Your task to perform on an android device: What's the weather going to be this weekend? Image 0: 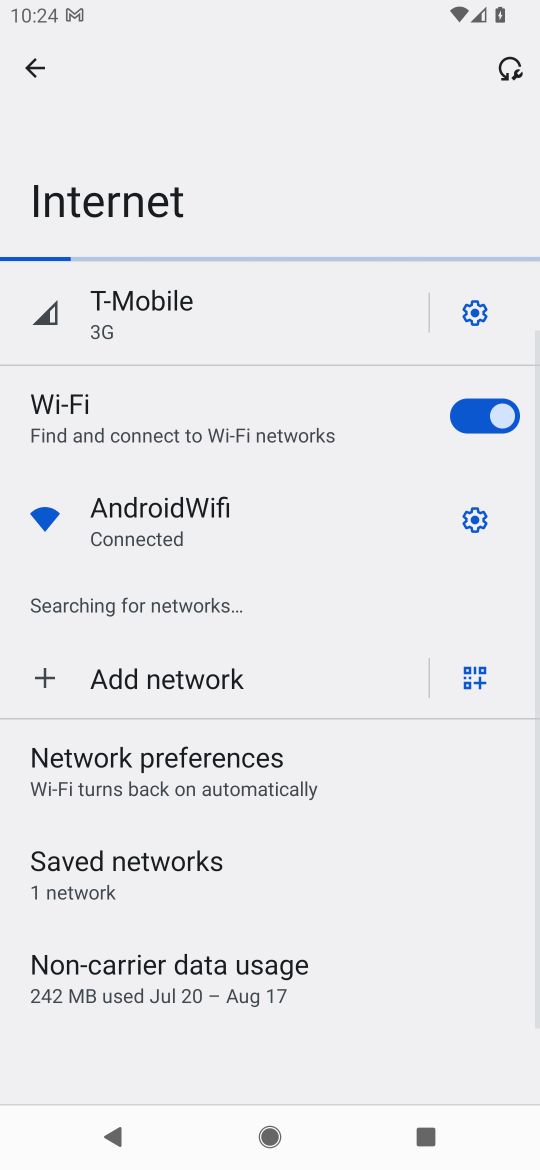
Step 0: press home button
Your task to perform on an android device: What's the weather going to be this weekend? Image 1: 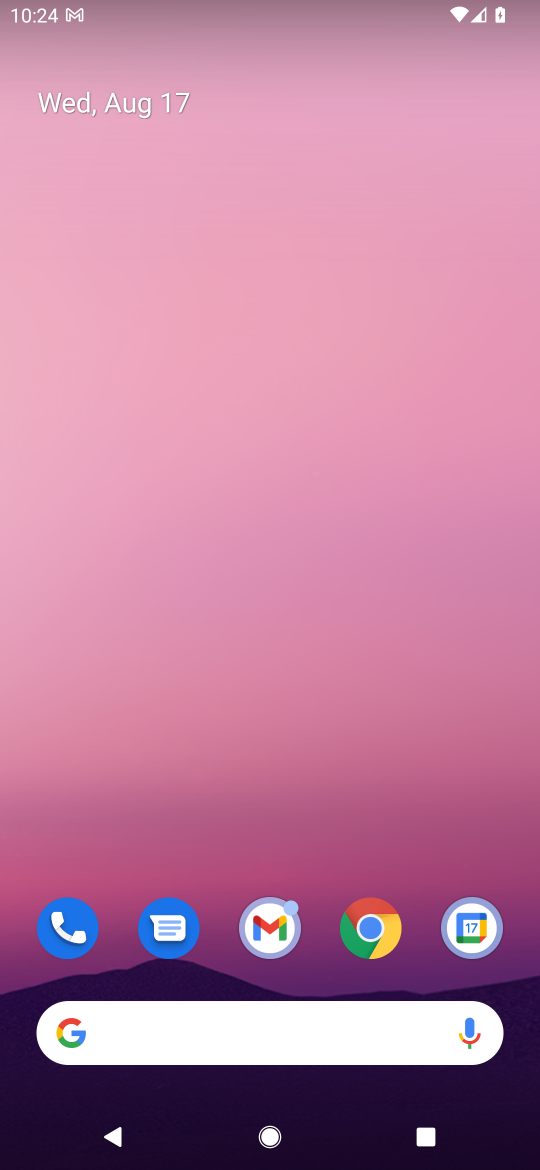
Step 1: click (343, 1024)
Your task to perform on an android device: What's the weather going to be this weekend? Image 2: 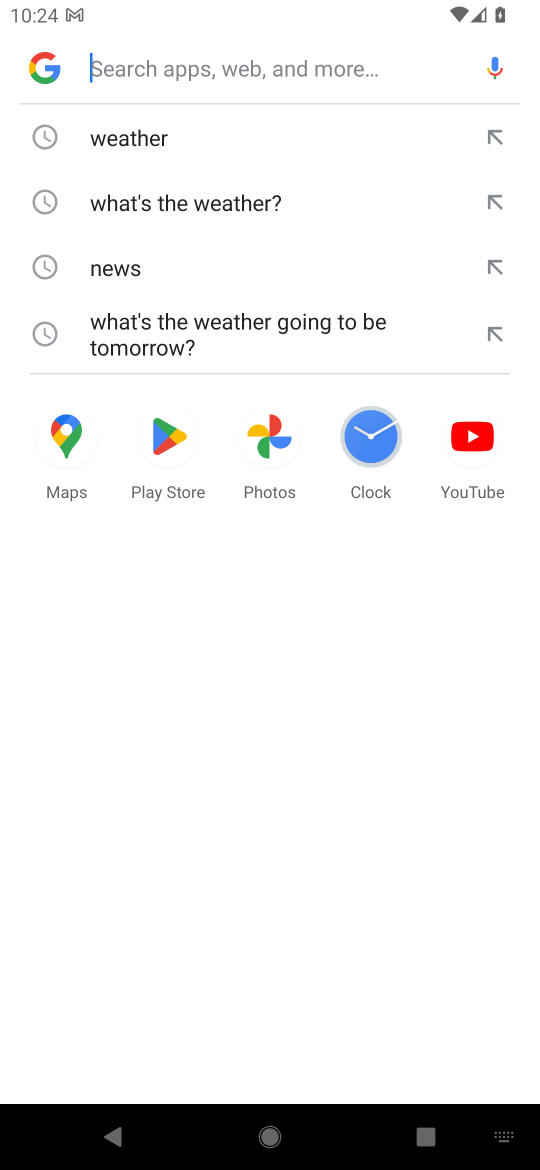
Step 2: click (177, 130)
Your task to perform on an android device: What's the weather going to be this weekend? Image 3: 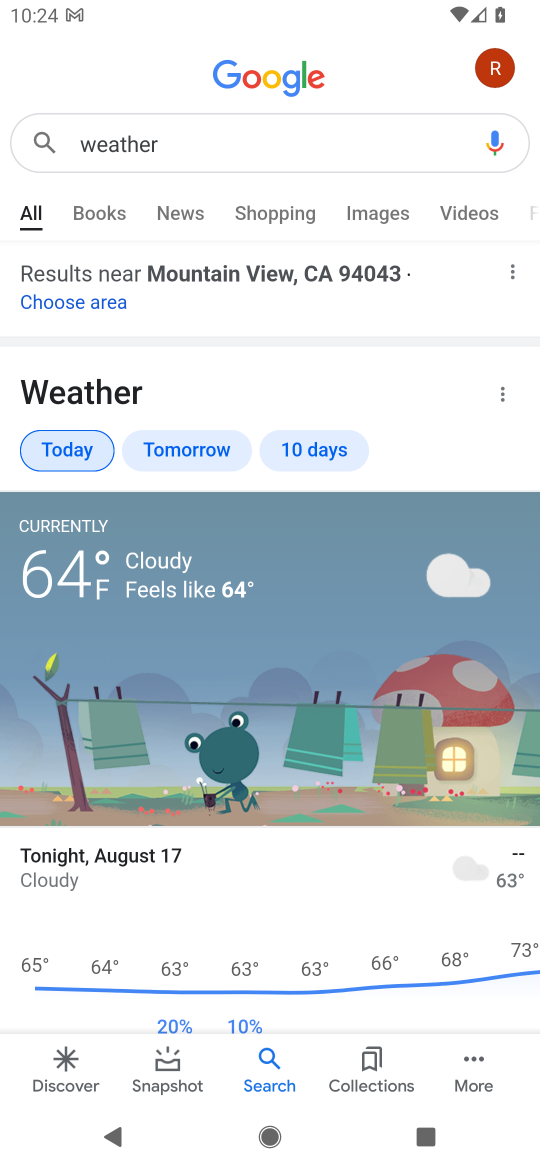
Step 3: click (329, 455)
Your task to perform on an android device: What's the weather going to be this weekend? Image 4: 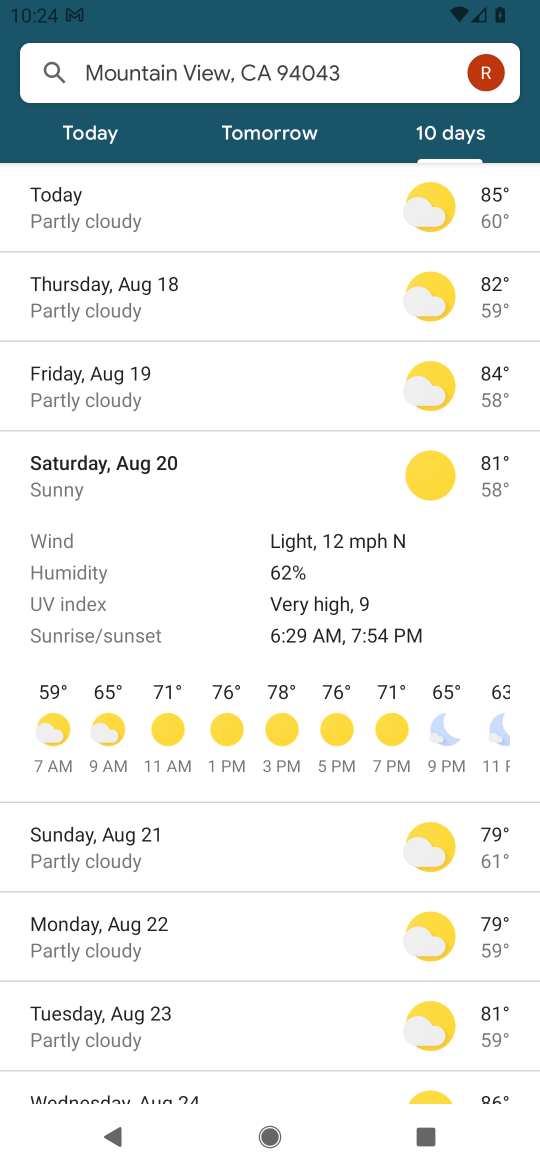
Step 4: click (343, 644)
Your task to perform on an android device: What's the weather going to be this weekend? Image 5: 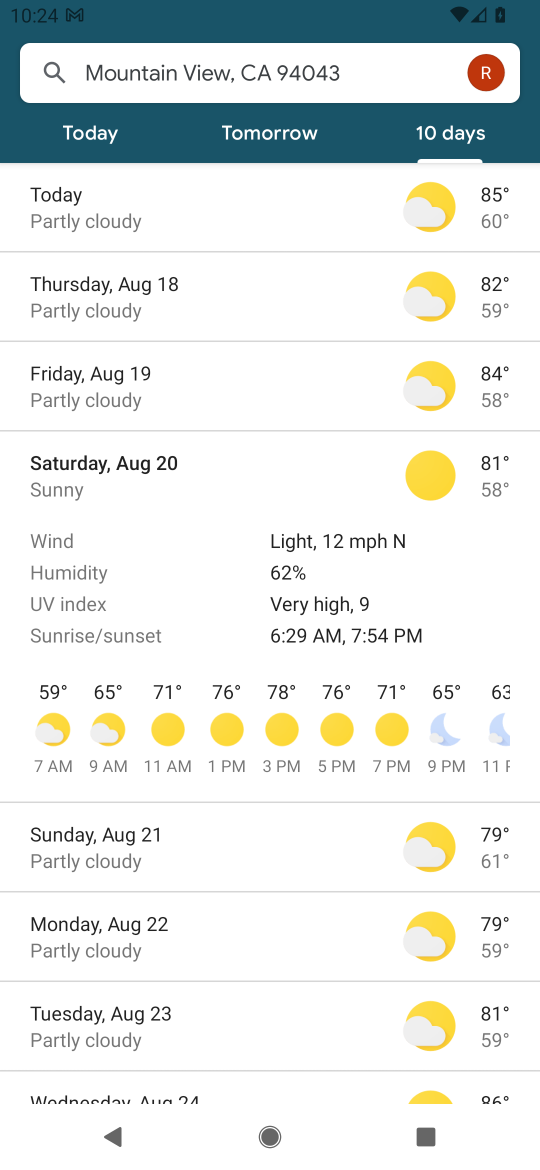
Step 5: task complete